Your task to perform on an android device: Open CNN.com Image 0: 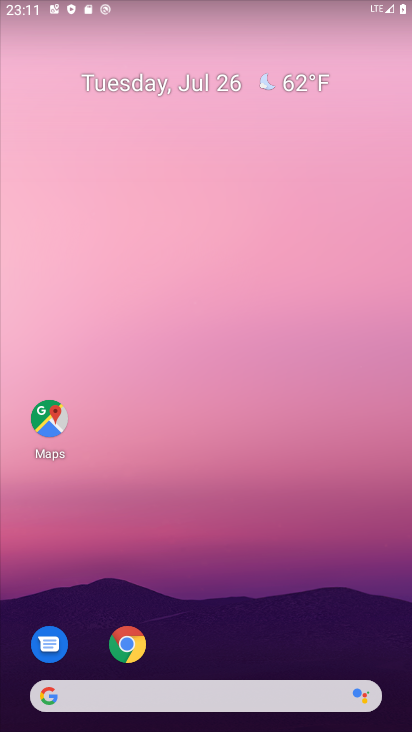
Step 0: click (133, 656)
Your task to perform on an android device: Open CNN.com Image 1: 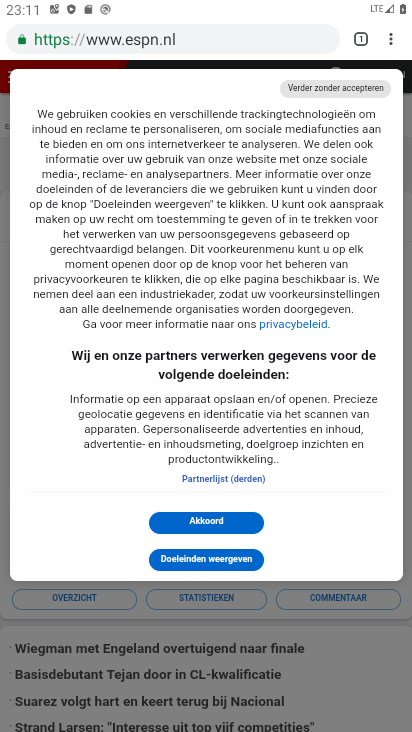
Step 1: click (201, 50)
Your task to perform on an android device: Open CNN.com Image 2: 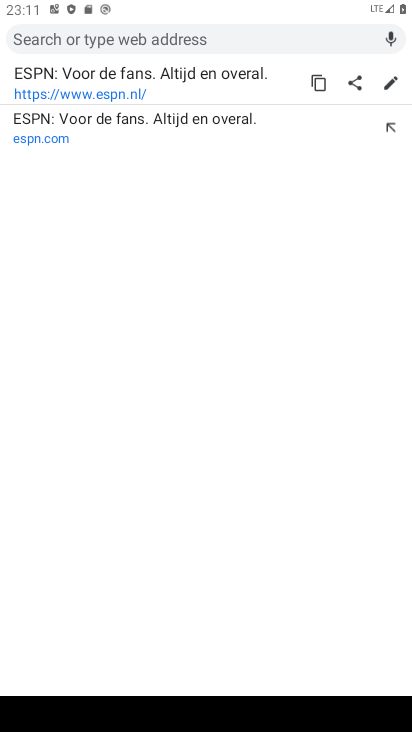
Step 2: type "cnn.com"
Your task to perform on an android device: Open CNN.com Image 3: 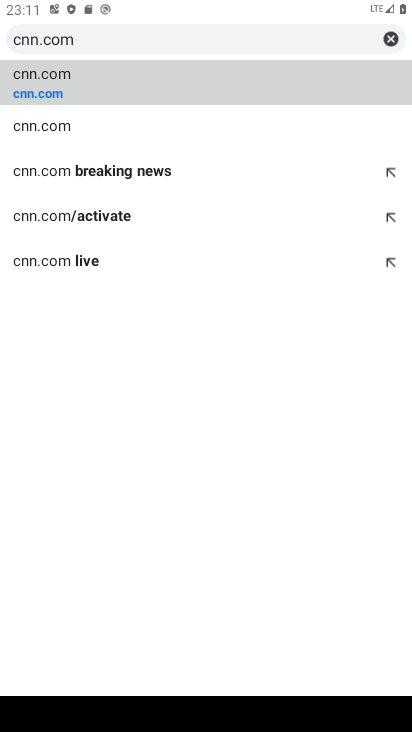
Step 3: click (59, 103)
Your task to perform on an android device: Open CNN.com Image 4: 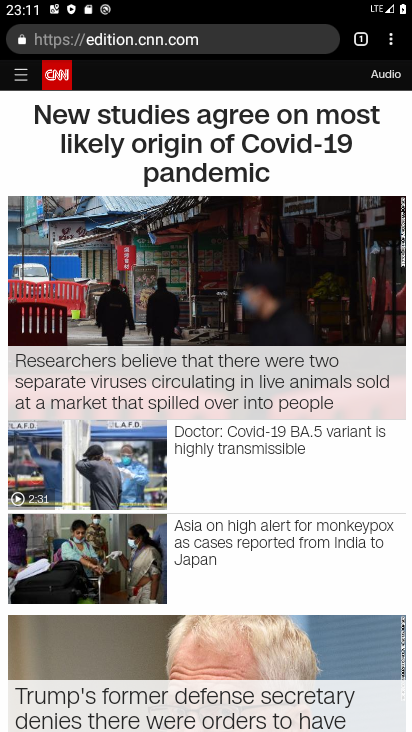
Step 4: task complete